Your task to perform on an android device: change text size in settings app Image 0: 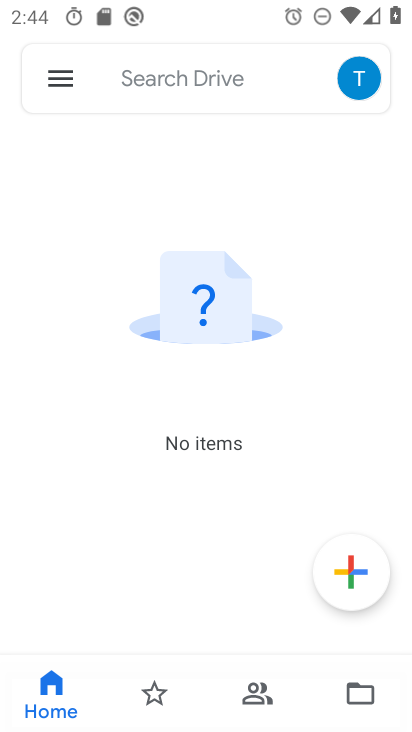
Step 0: press home button
Your task to perform on an android device: change text size in settings app Image 1: 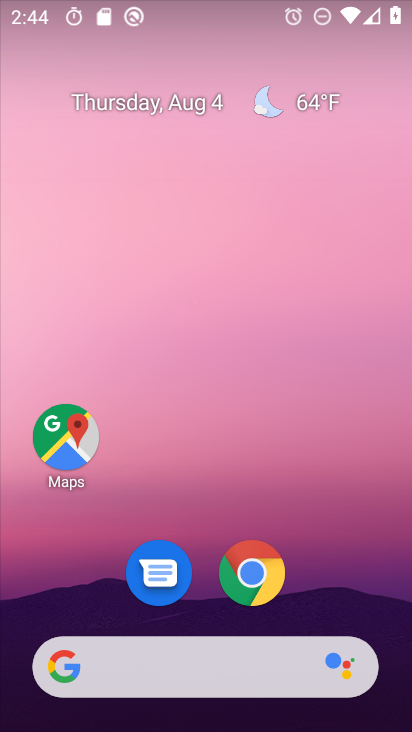
Step 1: drag from (358, 507) to (349, 147)
Your task to perform on an android device: change text size in settings app Image 2: 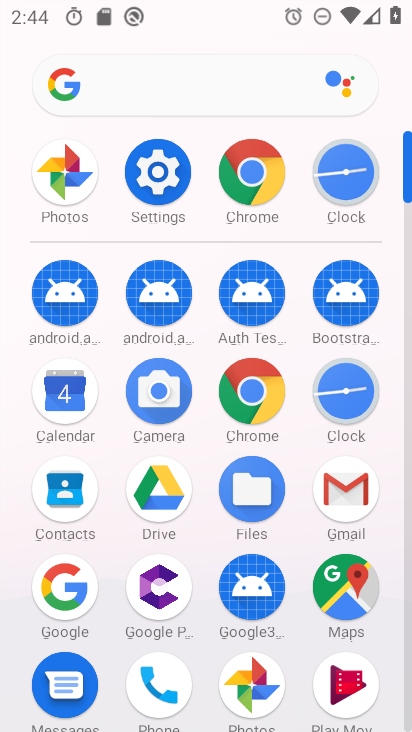
Step 2: drag from (211, 554) to (221, 213)
Your task to perform on an android device: change text size in settings app Image 3: 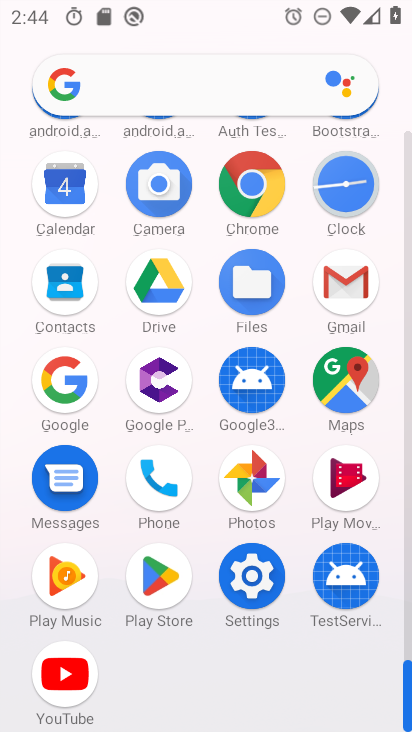
Step 3: click (243, 580)
Your task to perform on an android device: change text size in settings app Image 4: 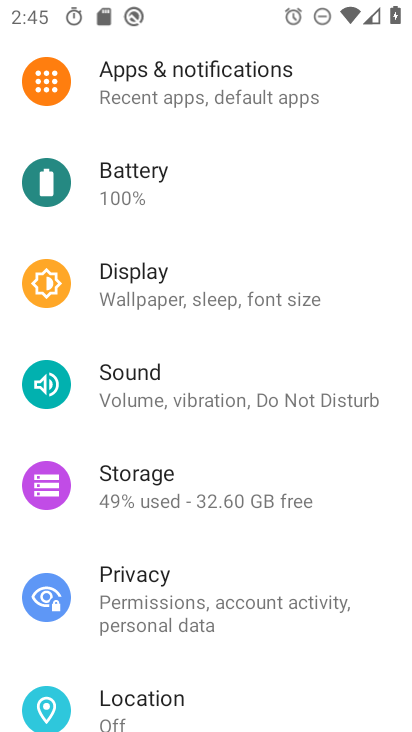
Step 4: click (211, 301)
Your task to perform on an android device: change text size in settings app Image 5: 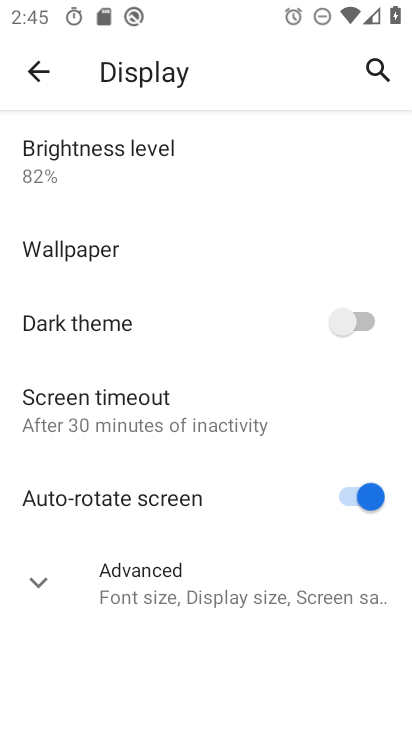
Step 5: click (151, 563)
Your task to perform on an android device: change text size in settings app Image 6: 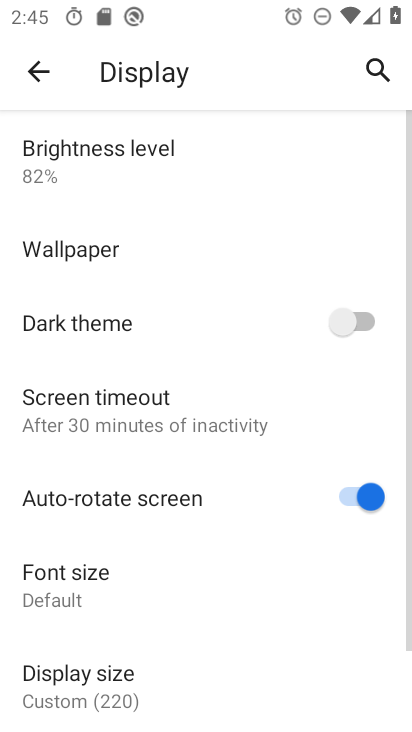
Step 6: click (94, 607)
Your task to perform on an android device: change text size in settings app Image 7: 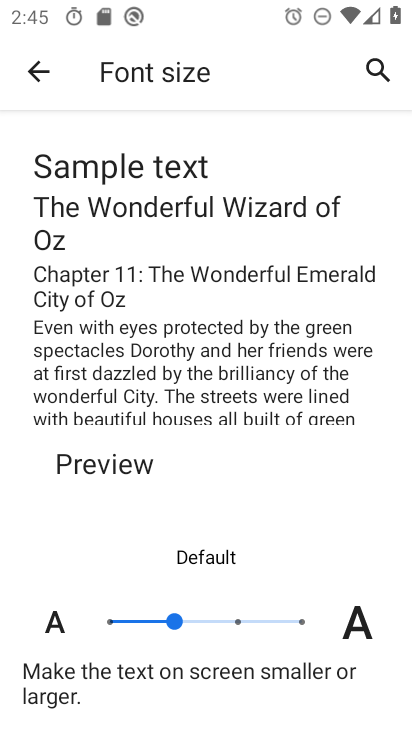
Step 7: click (128, 625)
Your task to perform on an android device: change text size in settings app Image 8: 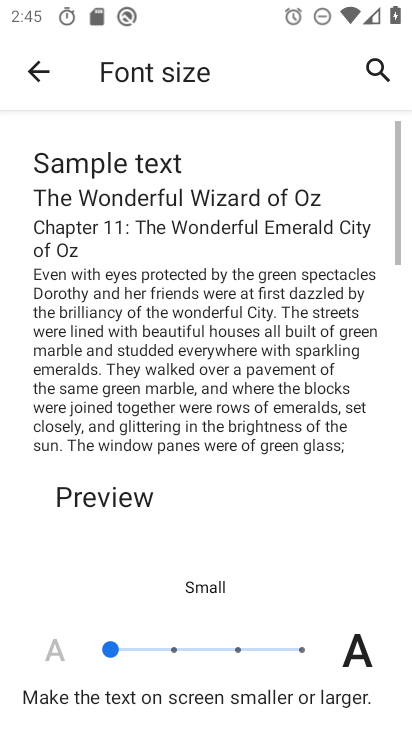
Step 8: task complete